Your task to perform on an android device: turn off picture-in-picture Image 0: 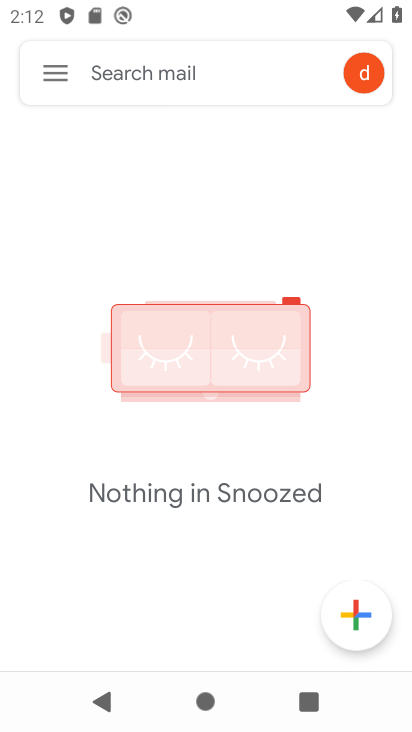
Step 0: press home button
Your task to perform on an android device: turn off picture-in-picture Image 1: 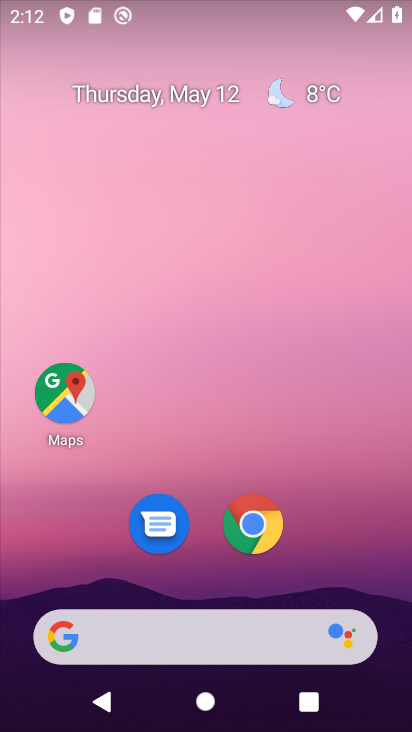
Step 1: click (255, 517)
Your task to perform on an android device: turn off picture-in-picture Image 2: 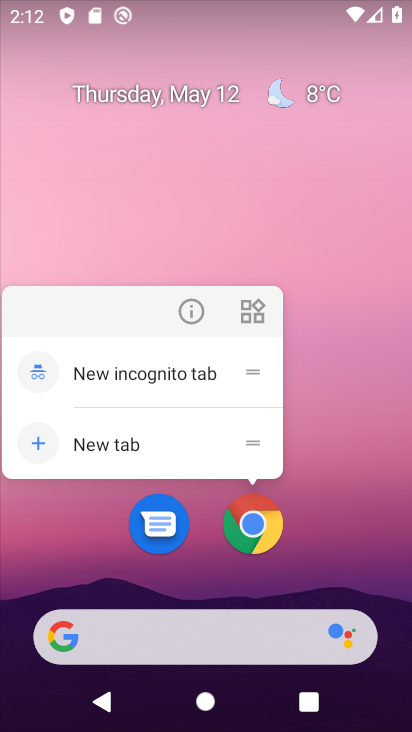
Step 2: click (187, 312)
Your task to perform on an android device: turn off picture-in-picture Image 3: 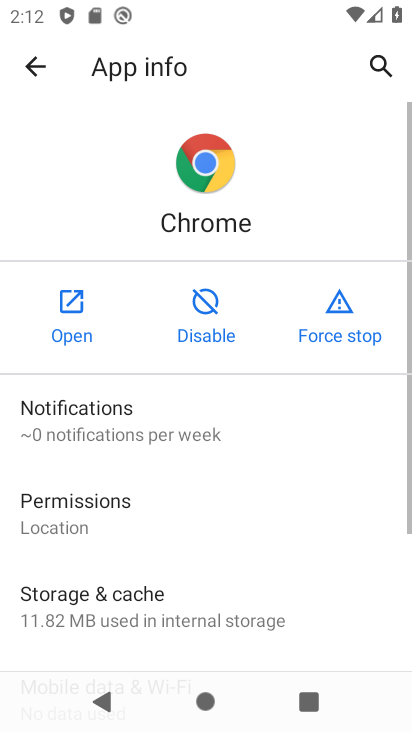
Step 3: drag from (226, 573) to (265, 85)
Your task to perform on an android device: turn off picture-in-picture Image 4: 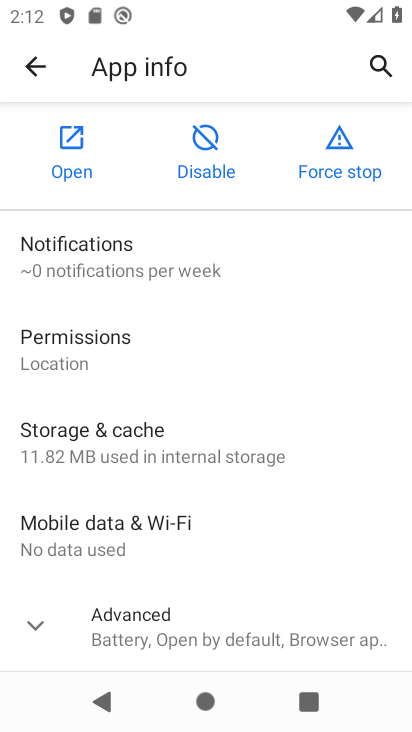
Step 4: click (36, 621)
Your task to perform on an android device: turn off picture-in-picture Image 5: 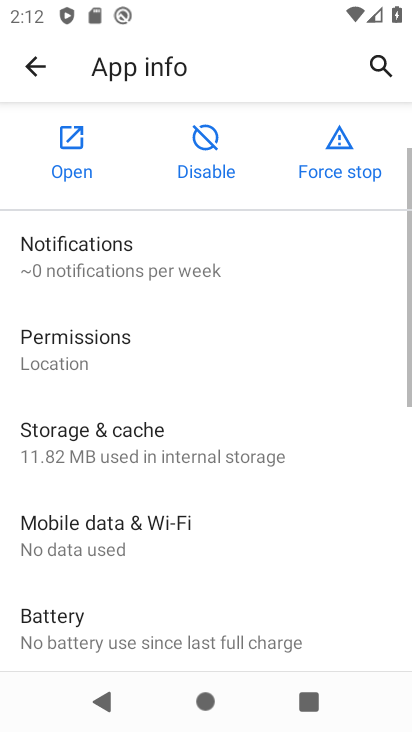
Step 5: drag from (238, 527) to (238, 186)
Your task to perform on an android device: turn off picture-in-picture Image 6: 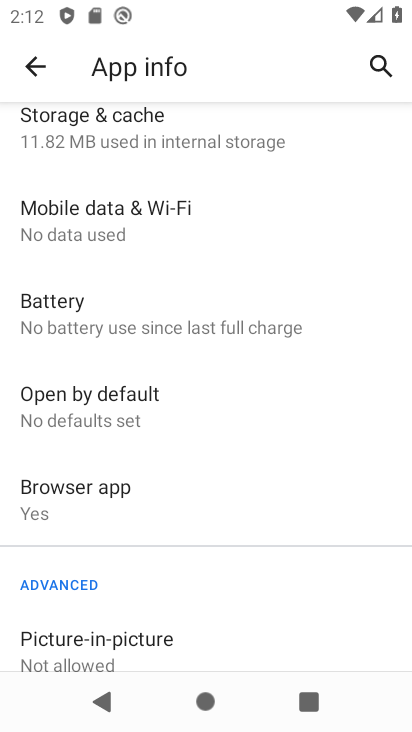
Step 6: click (155, 642)
Your task to perform on an android device: turn off picture-in-picture Image 7: 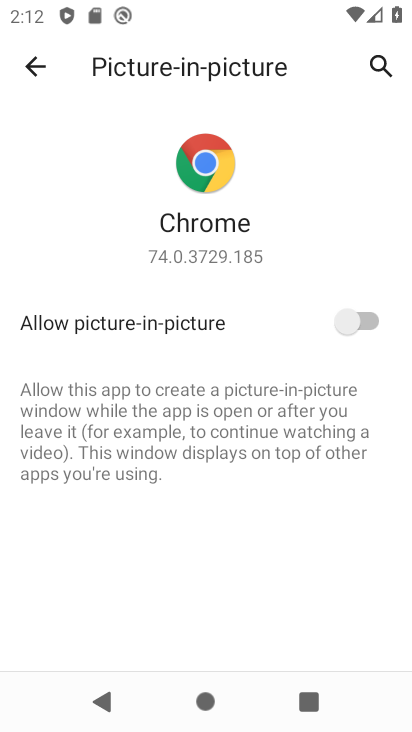
Step 7: task complete